Your task to perform on an android device: When is my next appointment? Image 0: 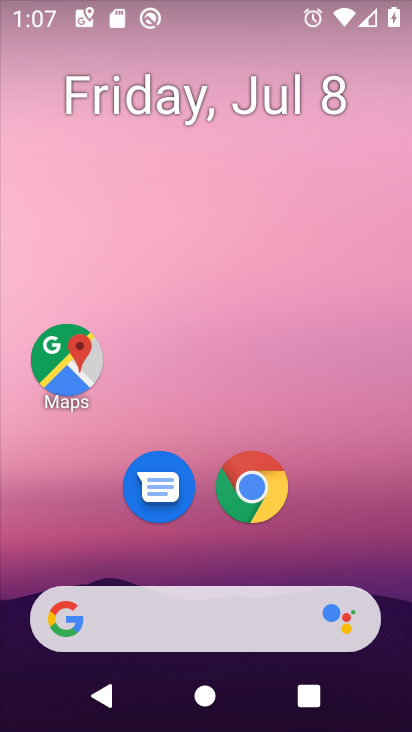
Step 0: drag from (369, 542) to (380, 148)
Your task to perform on an android device: When is my next appointment? Image 1: 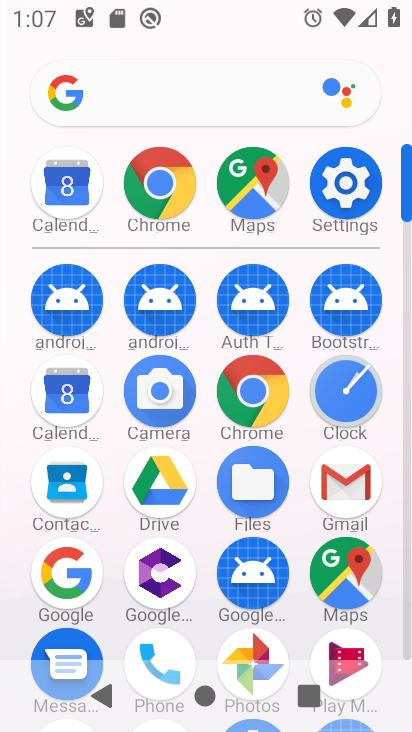
Step 1: click (60, 405)
Your task to perform on an android device: When is my next appointment? Image 2: 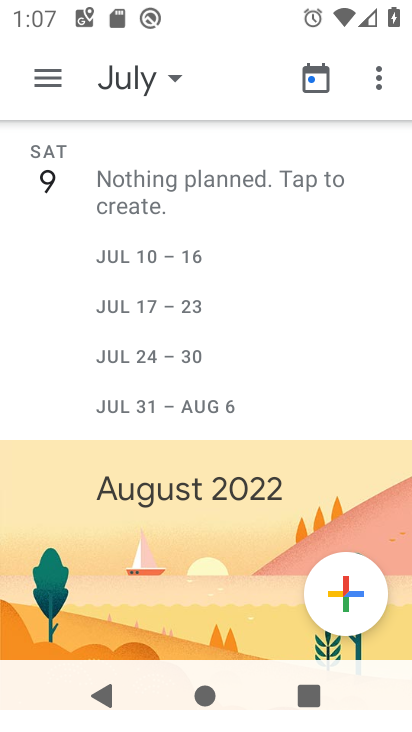
Step 2: click (177, 78)
Your task to perform on an android device: When is my next appointment? Image 3: 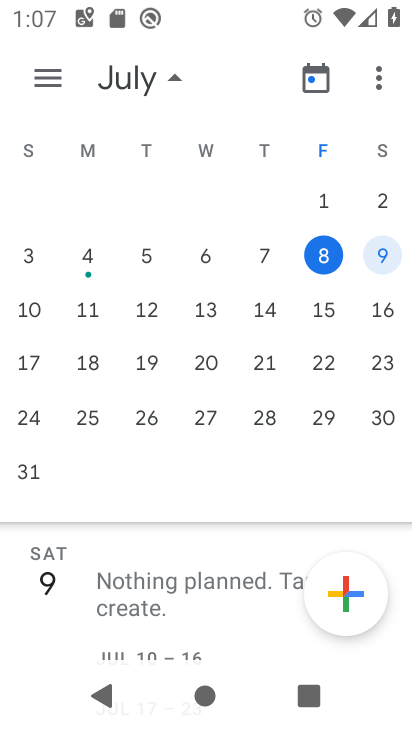
Step 3: task complete